Your task to perform on an android device: Search for razer blade on target, select the first entry, add it to the cart, then select checkout. Image 0: 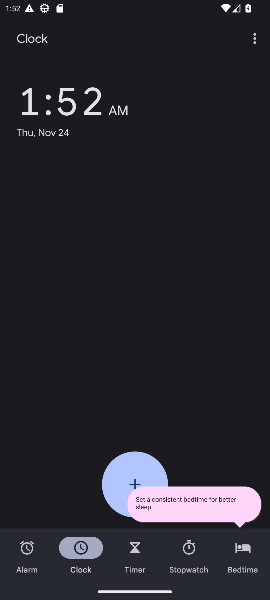
Step 0: press home button
Your task to perform on an android device: Search for razer blade on target, select the first entry, add it to the cart, then select checkout. Image 1: 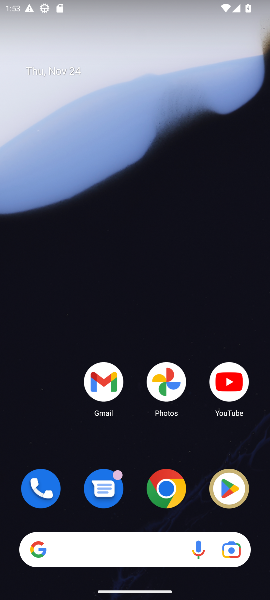
Step 1: click (170, 501)
Your task to perform on an android device: Search for razer blade on target, select the first entry, add it to the cart, then select checkout. Image 2: 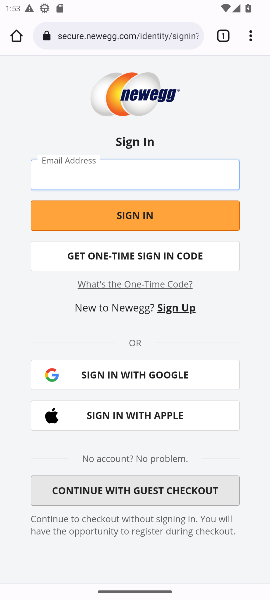
Step 2: click (112, 38)
Your task to perform on an android device: Search for razer blade on target, select the first entry, add it to the cart, then select checkout. Image 3: 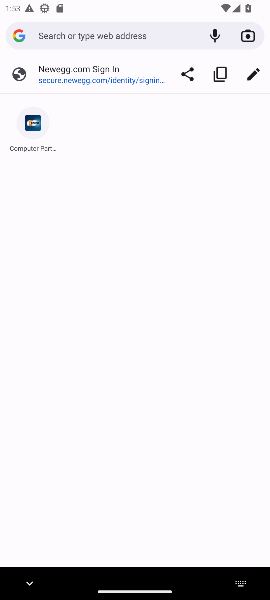
Step 3: type "target.com"
Your task to perform on an android device: Search for razer blade on target, select the first entry, add it to the cart, then select checkout. Image 4: 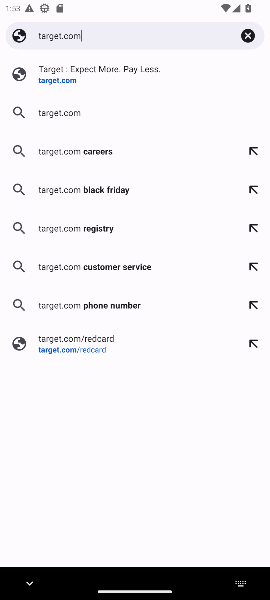
Step 4: click (55, 79)
Your task to perform on an android device: Search for razer blade on target, select the first entry, add it to the cart, then select checkout. Image 5: 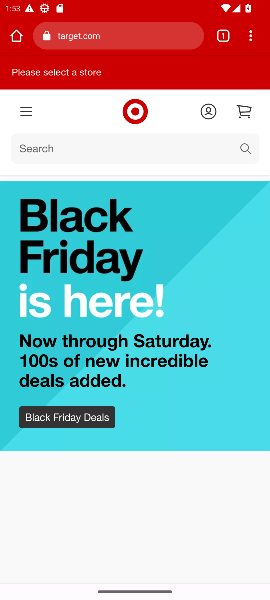
Step 5: click (245, 150)
Your task to perform on an android device: Search for razer blade on target, select the first entry, add it to the cart, then select checkout. Image 6: 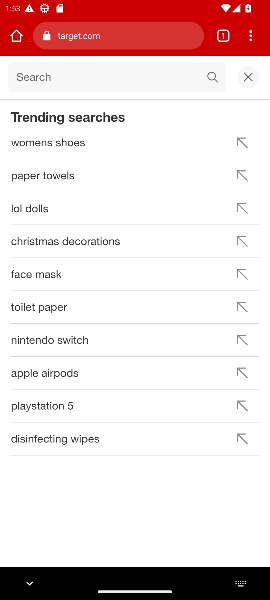
Step 6: type "razer blade"
Your task to perform on an android device: Search for razer blade on target, select the first entry, add it to the cart, then select checkout. Image 7: 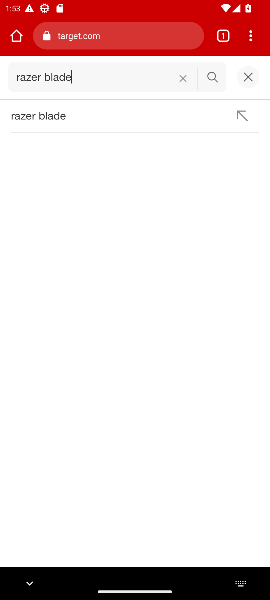
Step 7: click (52, 119)
Your task to perform on an android device: Search for razer blade on target, select the first entry, add it to the cart, then select checkout. Image 8: 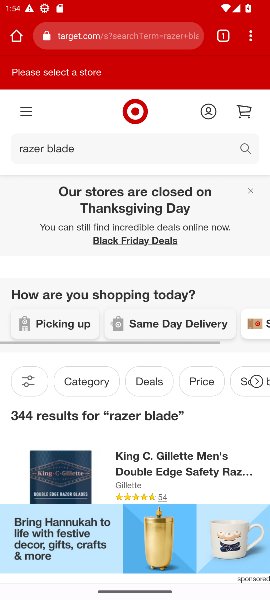
Step 8: task complete